Your task to perform on an android device: Open Youtube and go to "Your channel" Image 0: 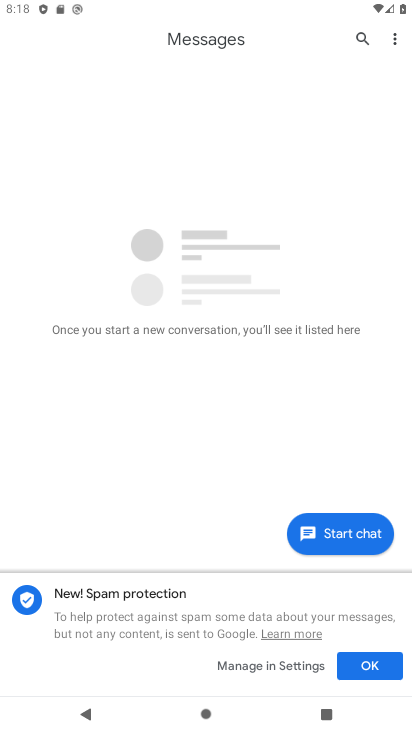
Step 0: press home button
Your task to perform on an android device: Open Youtube and go to "Your channel" Image 1: 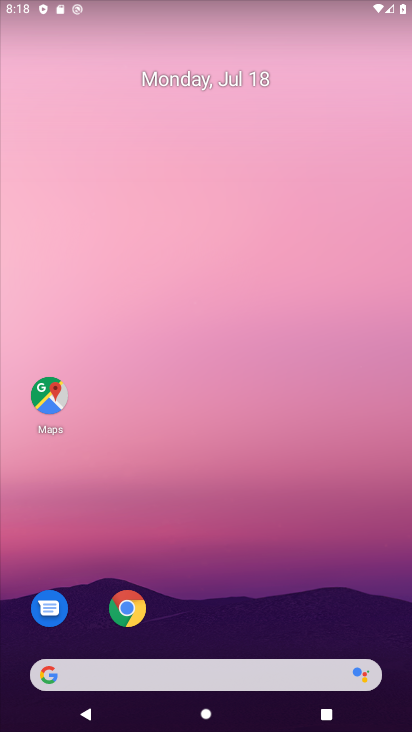
Step 1: drag from (274, 639) to (258, 245)
Your task to perform on an android device: Open Youtube and go to "Your channel" Image 2: 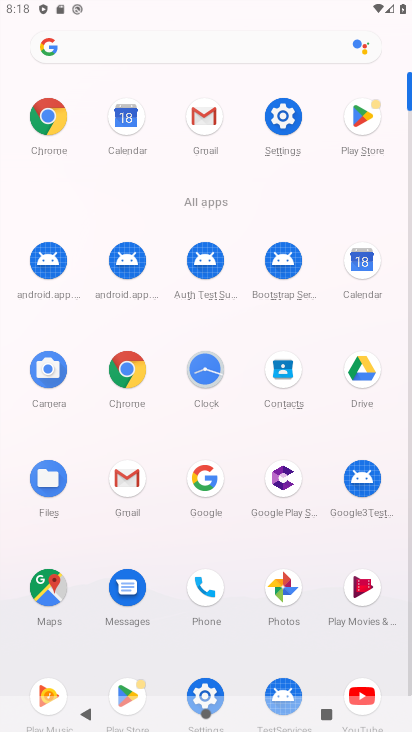
Step 2: click (359, 686)
Your task to perform on an android device: Open Youtube and go to "Your channel" Image 3: 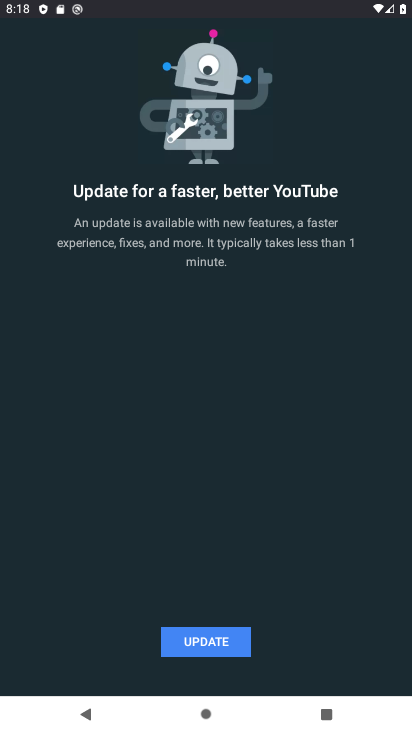
Step 3: click (219, 640)
Your task to perform on an android device: Open Youtube and go to "Your channel" Image 4: 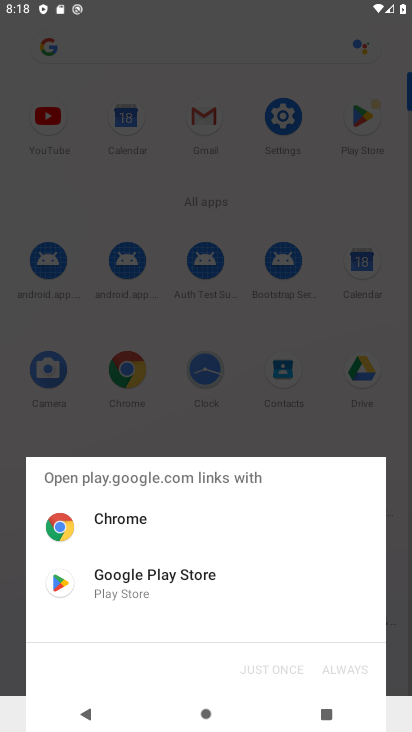
Step 4: click (171, 578)
Your task to perform on an android device: Open Youtube and go to "Your channel" Image 5: 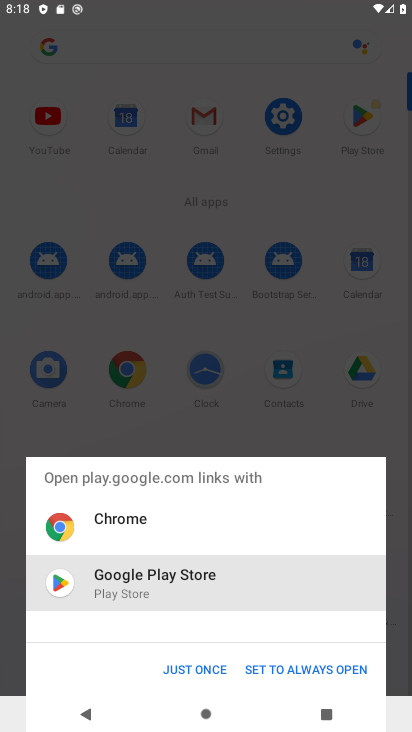
Step 5: click (183, 667)
Your task to perform on an android device: Open Youtube and go to "Your channel" Image 6: 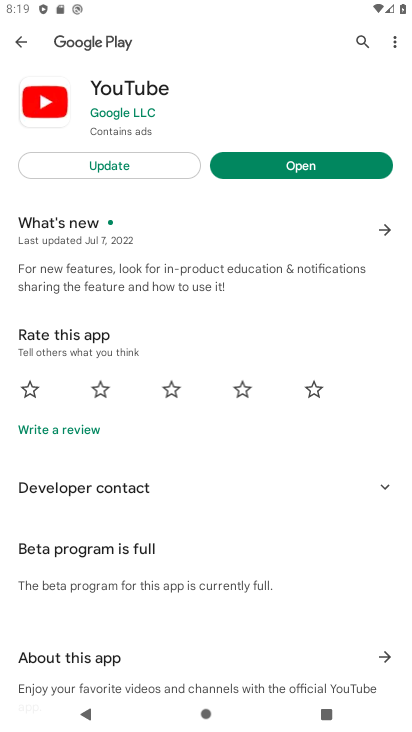
Step 6: click (78, 161)
Your task to perform on an android device: Open Youtube and go to "Your channel" Image 7: 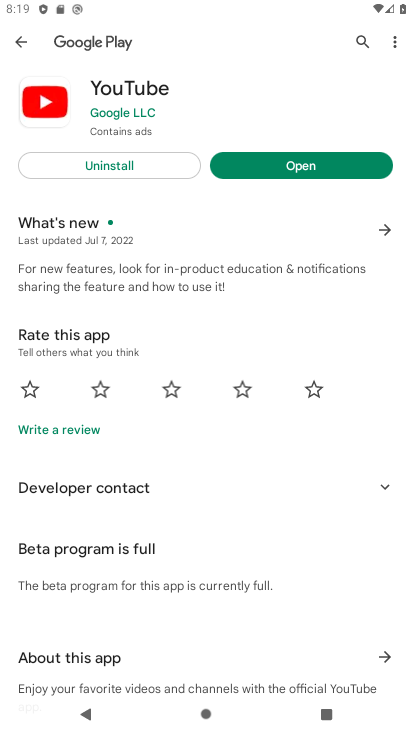
Step 7: click (297, 160)
Your task to perform on an android device: Open Youtube and go to "Your channel" Image 8: 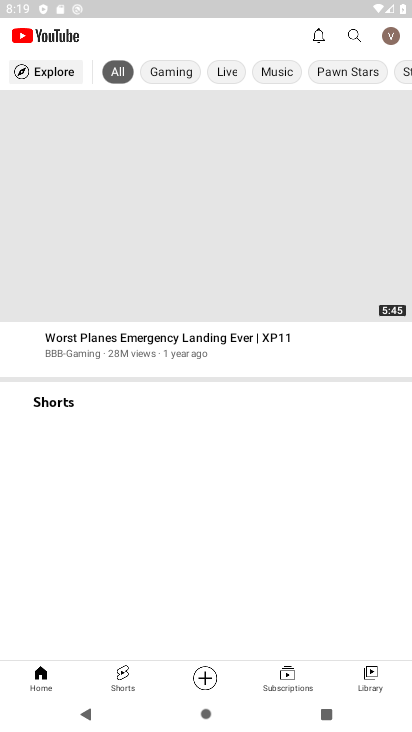
Step 8: click (395, 33)
Your task to perform on an android device: Open Youtube and go to "Your channel" Image 9: 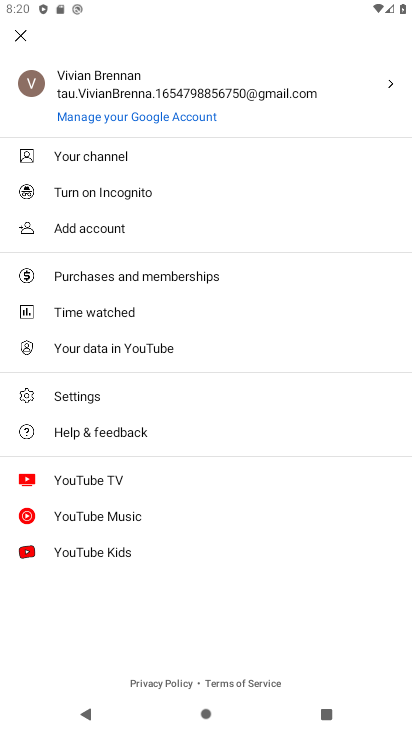
Step 9: click (101, 160)
Your task to perform on an android device: Open Youtube and go to "Your channel" Image 10: 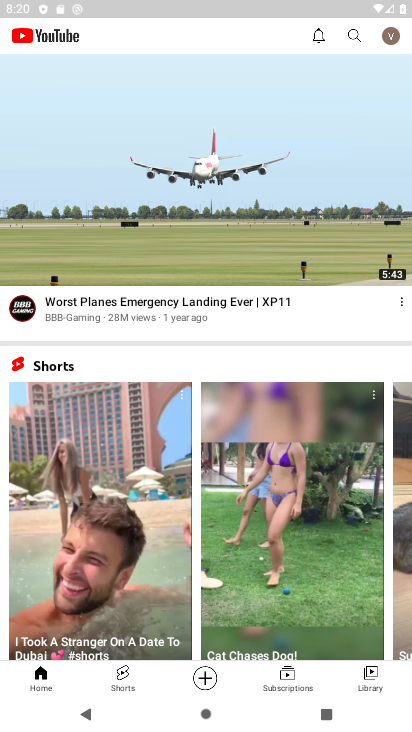
Step 10: task complete